Your task to perform on an android device: Open battery settings Image 0: 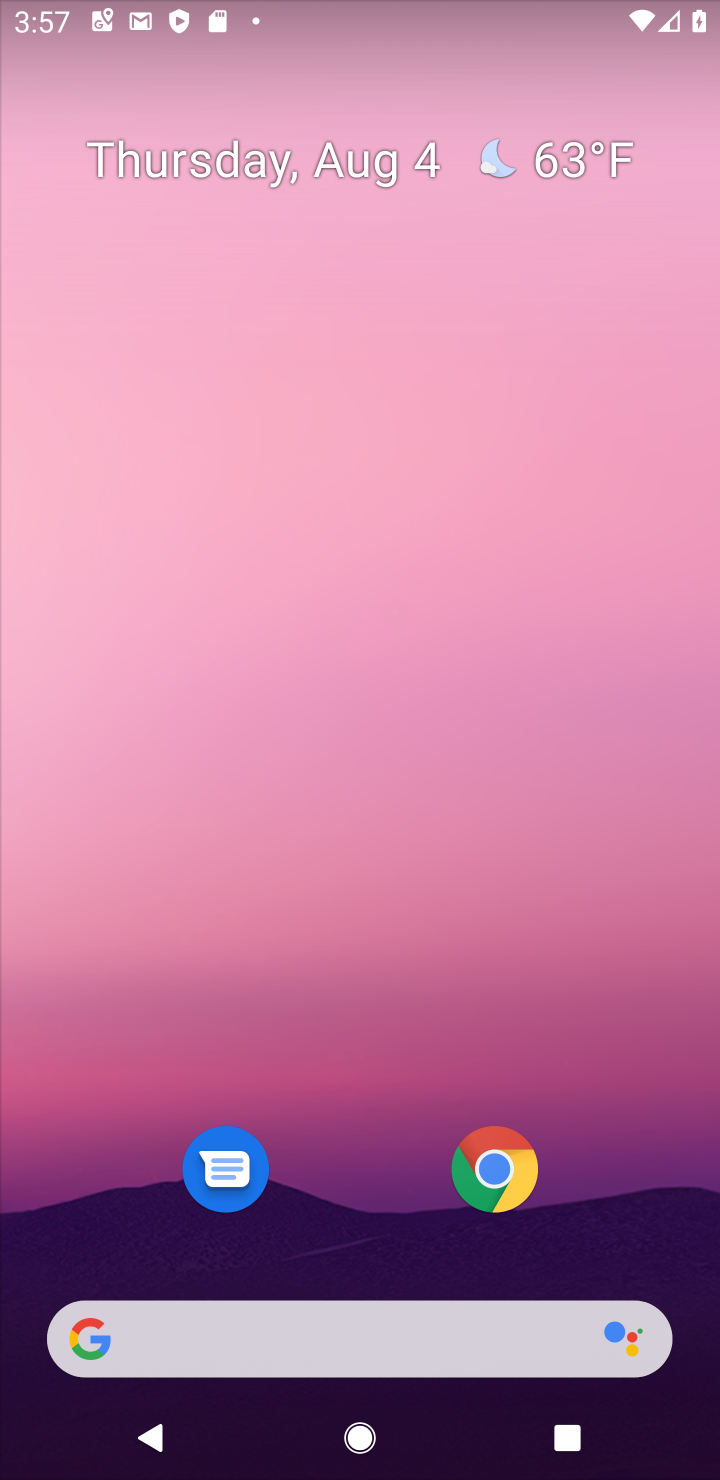
Step 0: drag from (358, 1061) to (476, 0)
Your task to perform on an android device: Open battery settings Image 1: 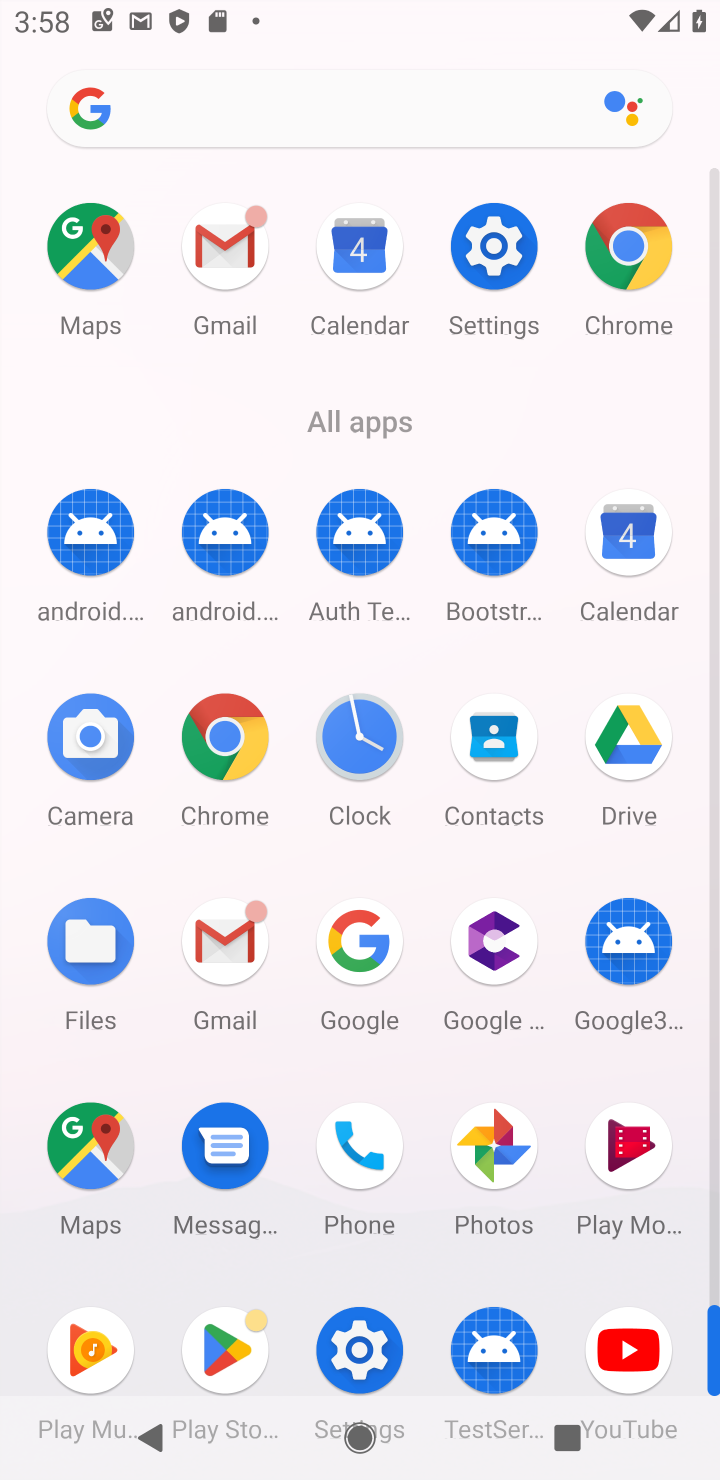
Step 1: click (359, 1314)
Your task to perform on an android device: Open battery settings Image 2: 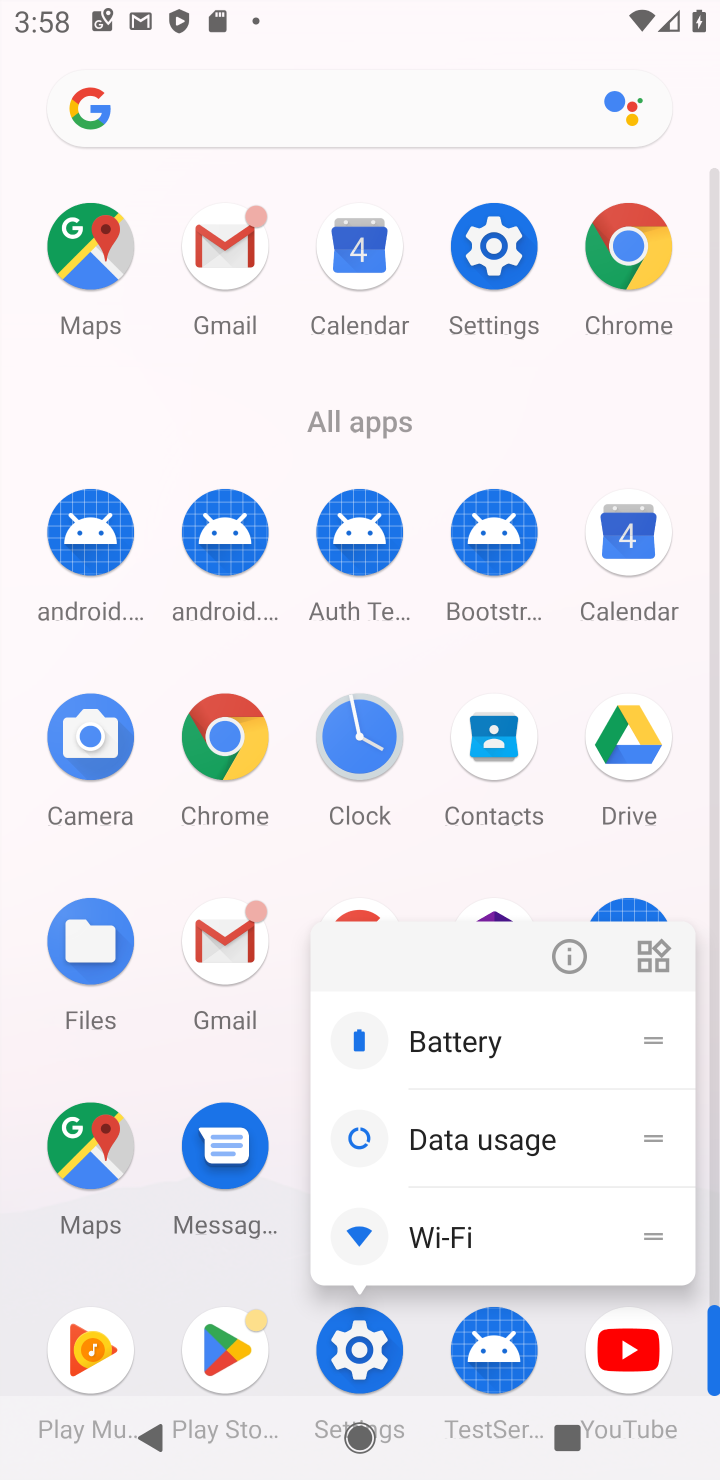
Step 2: click (352, 1316)
Your task to perform on an android device: Open battery settings Image 3: 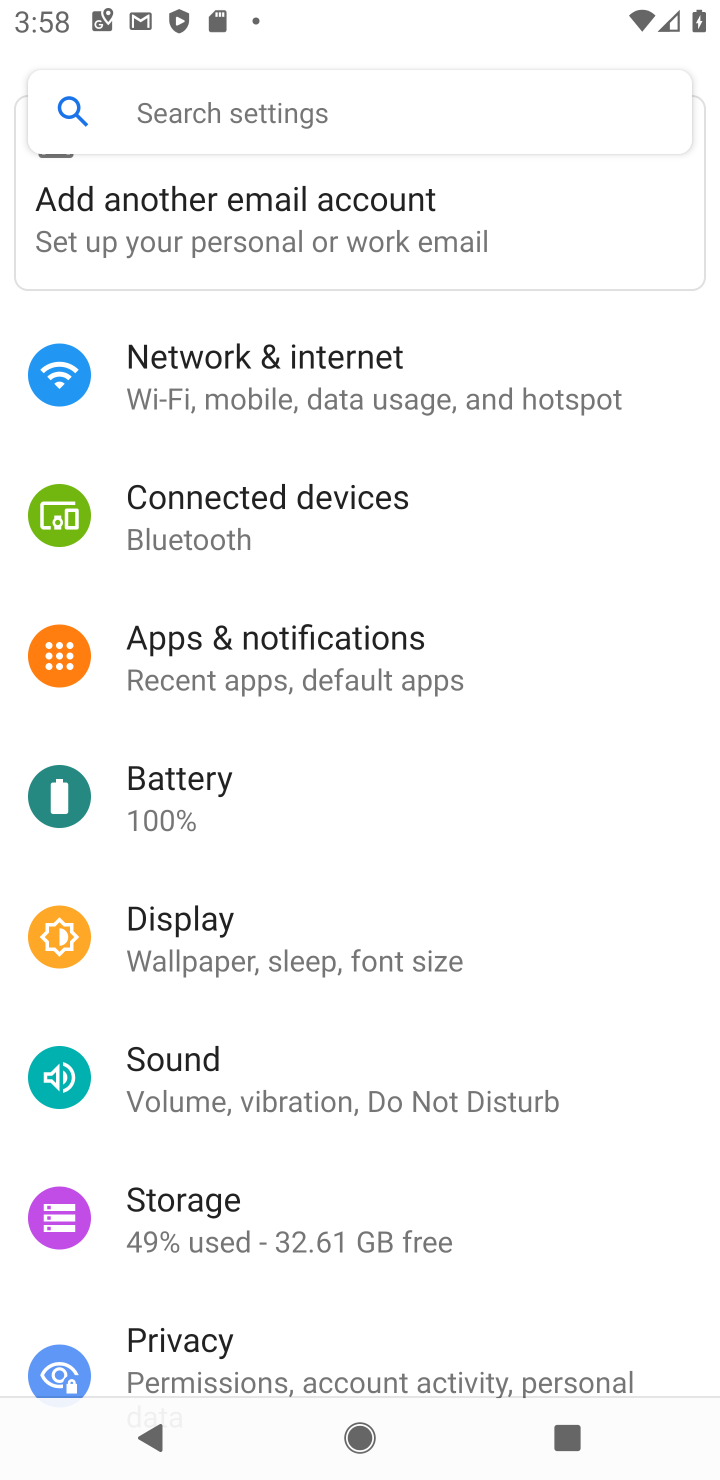
Step 3: click (215, 811)
Your task to perform on an android device: Open battery settings Image 4: 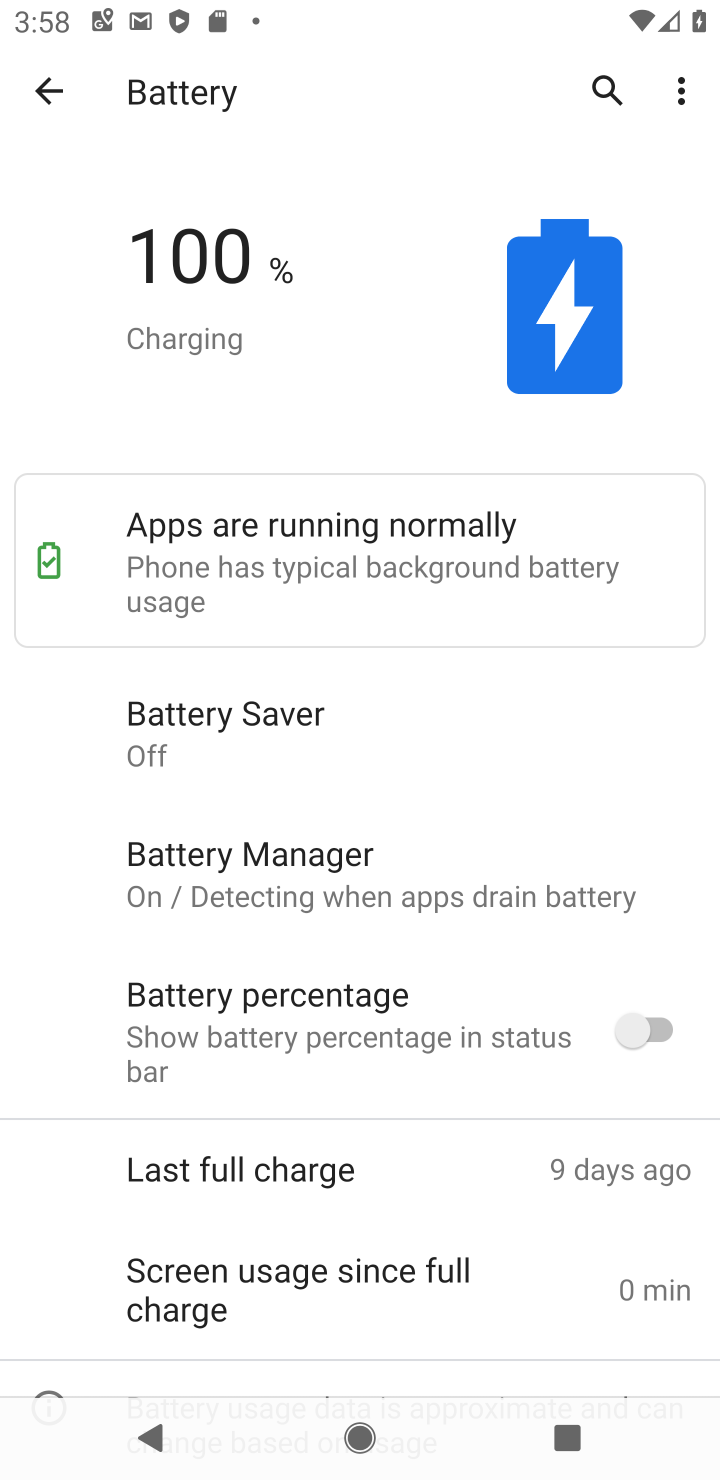
Step 4: task complete